Your task to perform on an android device: Open Maps and search for coffee Image 0: 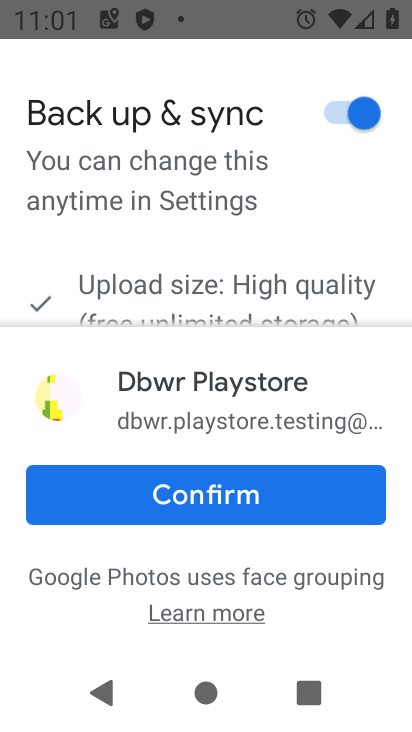
Step 0: press home button
Your task to perform on an android device: Open Maps and search for coffee Image 1: 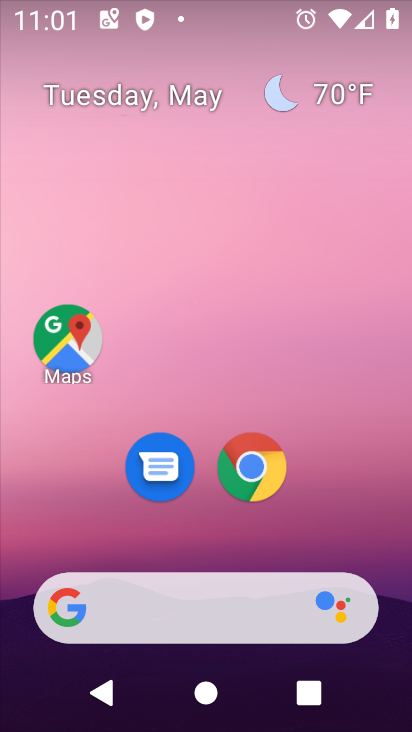
Step 1: click (65, 337)
Your task to perform on an android device: Open Maps and search for coffee Image 2: 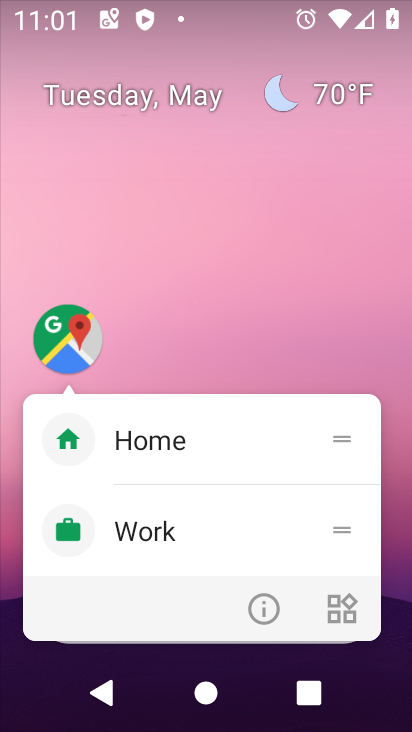
Step 2: click (92, 352)
Your task to perform on an android device: Open Maps and search for coffee Image 3: 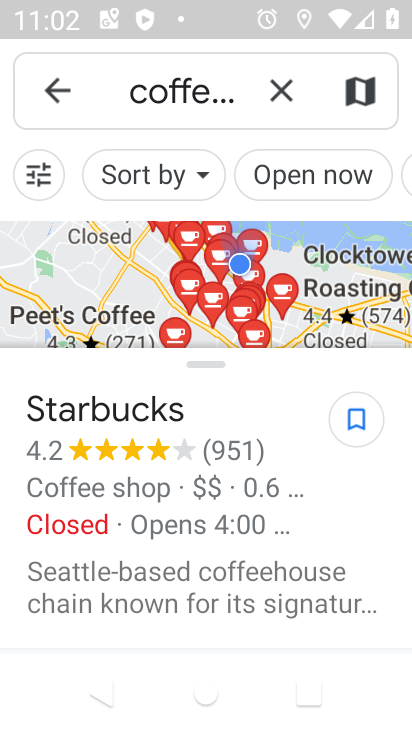
Step 3: click (296, 78)
Your task to perform on an android device: Open Maps and search for coffee Image 4: 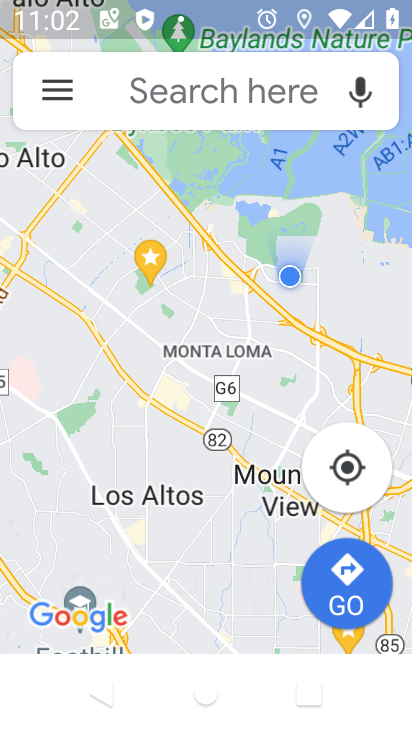
Step 4: click (215, 100)
Your task to perform on an android device: Open Maps and search for coffee Image 5: 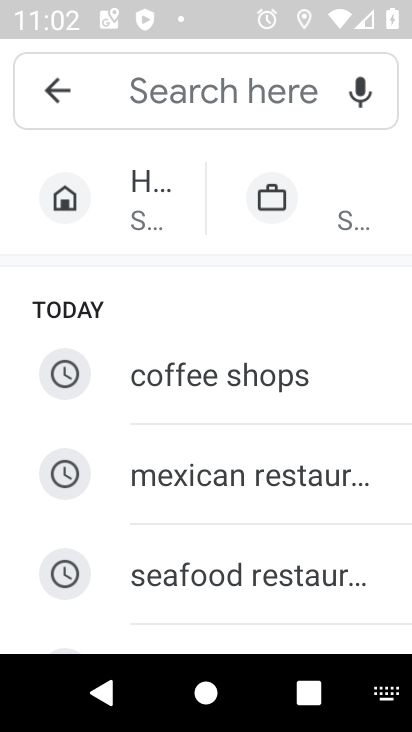
Step 5: type "Coffee"
Your task to perform on an android device: Open Maps and search for coffee Image 6: 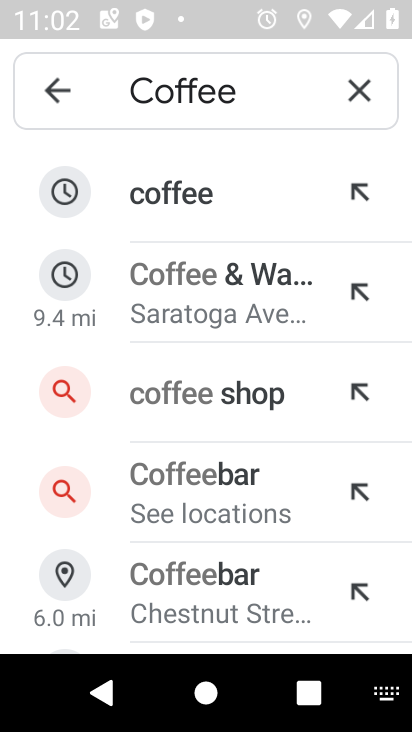
Step 6: click (255, 206)
Your task to perform on an android device: Open Maps and search for coffee Image 7: 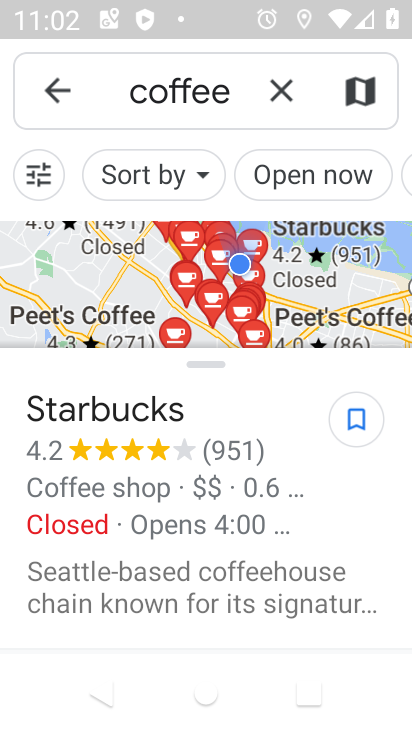
Step 7: task complete